Your task to perform on an android device: What's the news in Malaysia? Image 0: 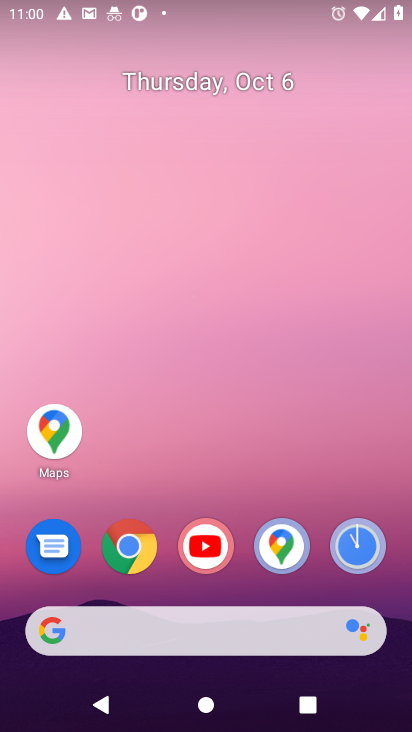
Step 0: click (124, 541)
Your task to perform on an android device: What's the news in Malaysia? Image 1: 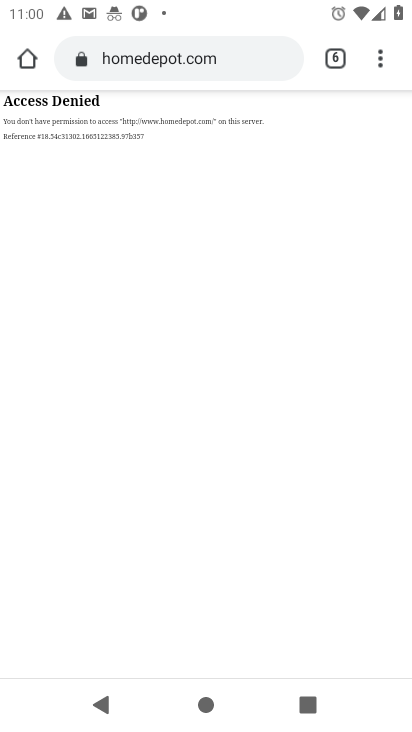
Step 1: click (217, 51)
Your task to perform on an android device: What's the news in Malaysia? Image 2: 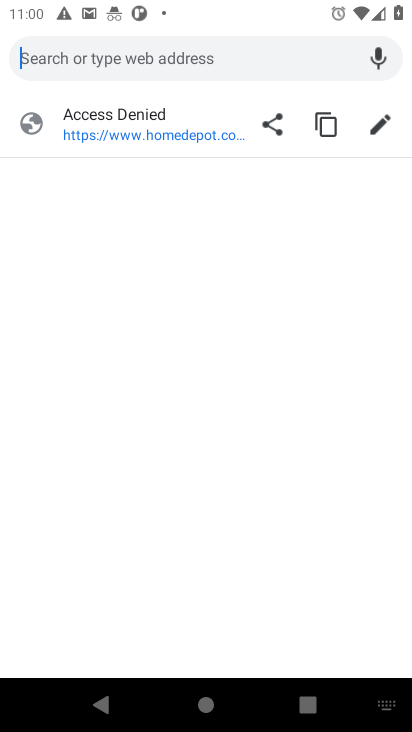
Step 2: type " news in Malaysia?"
Your task to perform on an android device: What's the news in Malaysia? Image 3: 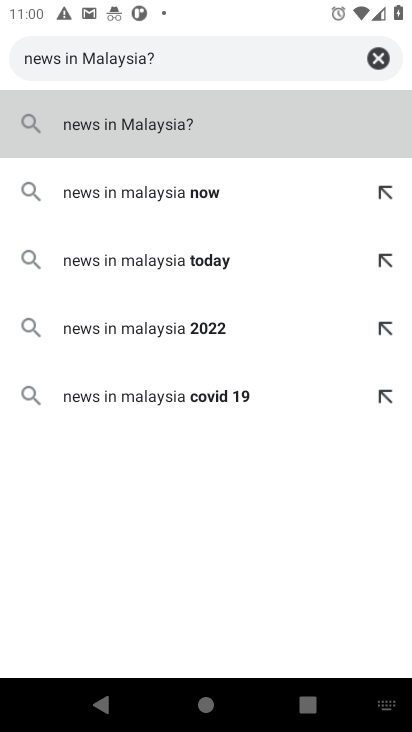
Step 3: click (101, 126)
Your task to perform on an android device: What's the news in Malaysia? Image 4: 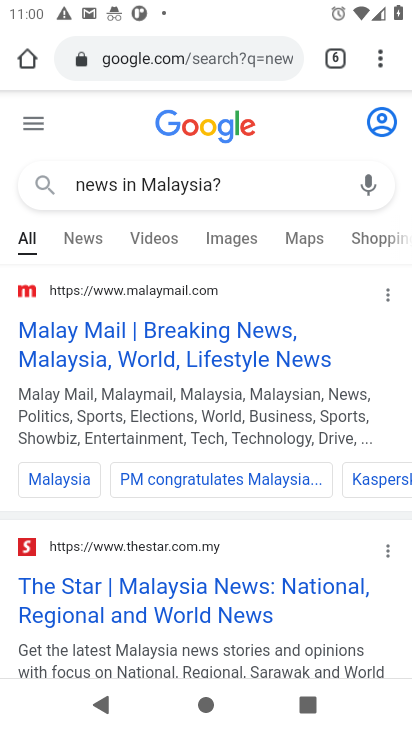
Step 4: click (75, 328)
Your task to perform on an android device: What's the news in Malaysia? Image 5: 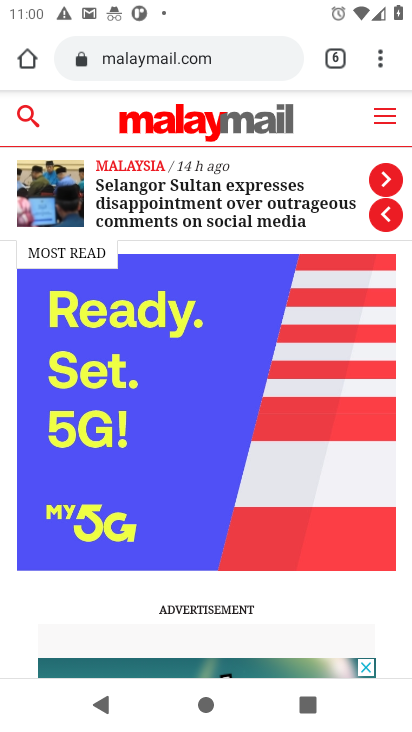
Step 5: drag from (218, 578) to (217, 109)
Your task to perform on an android device: What's the news in Malaysia? Image 6: 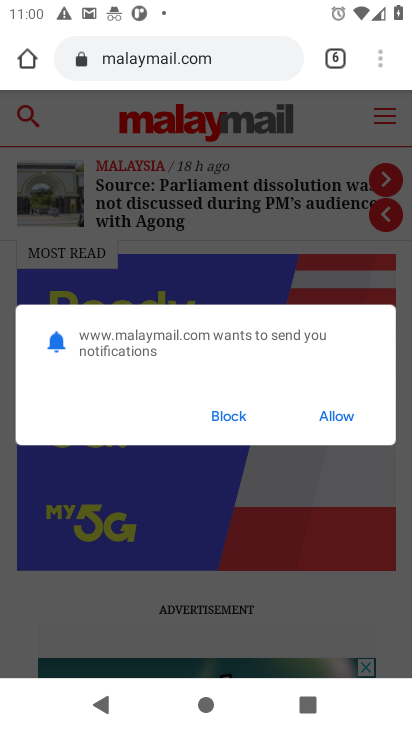
Step 6: click (221, 414)
Your task to perform on an android device: What's the news in Malaysia? Image 7: 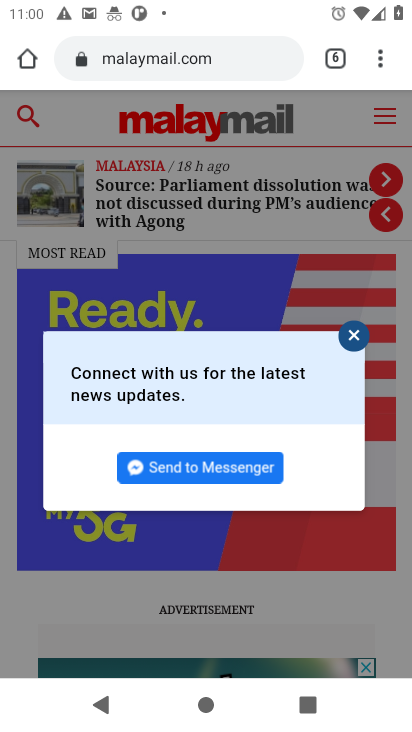
Step 7: click (352, 331)
Your task to perform on an android device: What's the news in Malaysia? Image 8: 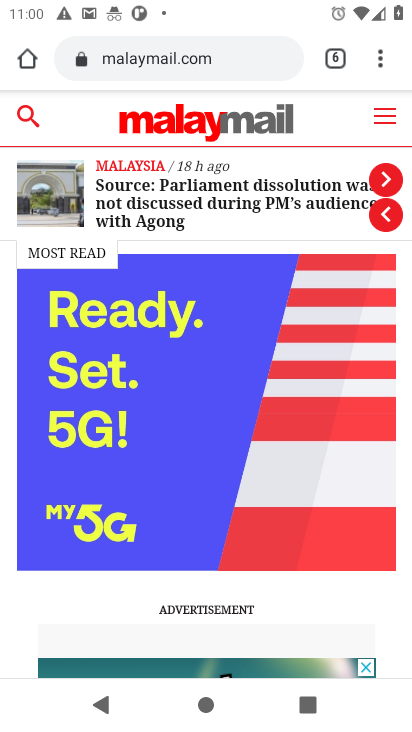
Step 8: drag from (305, 623) to (240, 55)
Your task to perform on an android device: What's the news in Malaysia? Image 9: 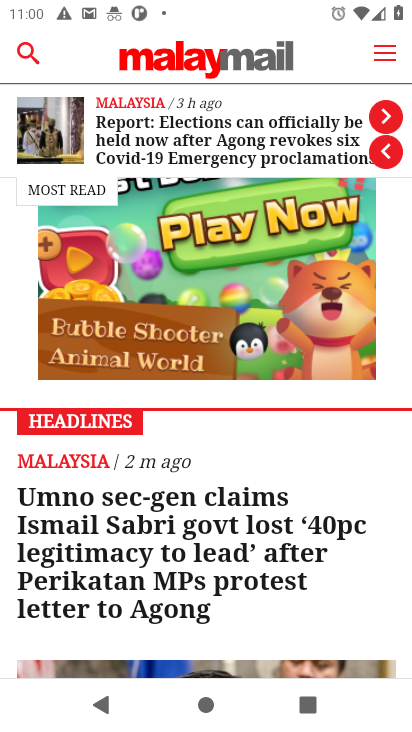
Step 9: drag from (254, 536) to (269, 89)
Your task to perform on an android device: What's the news in Malaysia? Image 10: 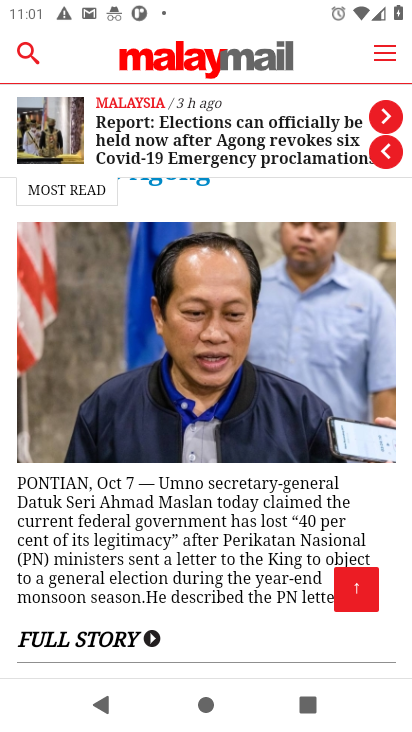
Step 10: drag from (231, 531) to (234, 204)
Your task to perform on an android device: What's the news in Malaysia? Image 11: 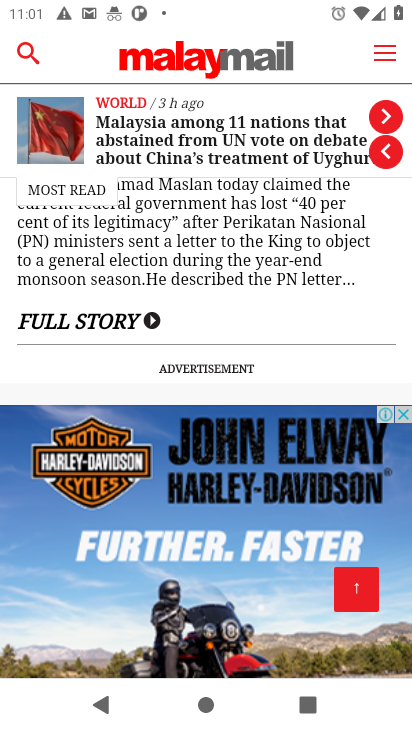
Step 11: drag from (262, 605) to (233, 189)
Your task to perform on an android device: What's the news in Malaysia? Image 12: 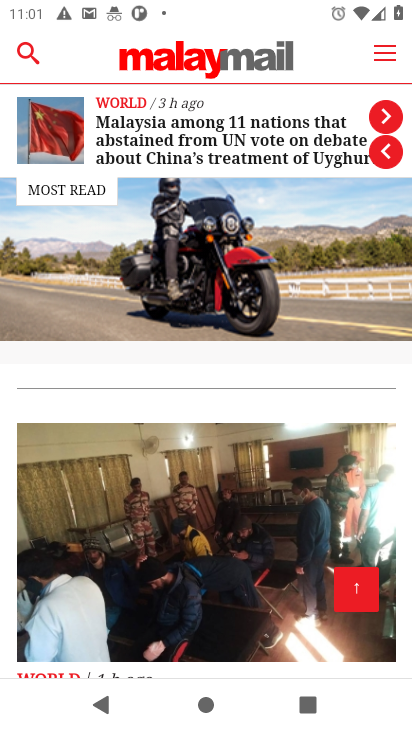
Step 12: drag from (248, 397) to (240, 203)
Your task to perform on an android device: What's the news in Malaysia? Image 13: 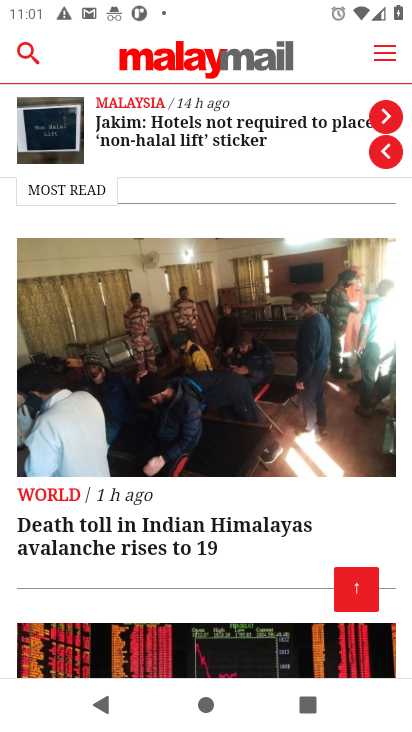
Step 13: drag from (255, 567) to (245, 240)
Your task to perform on an android device: What's the news in Malaysia? Image 14: 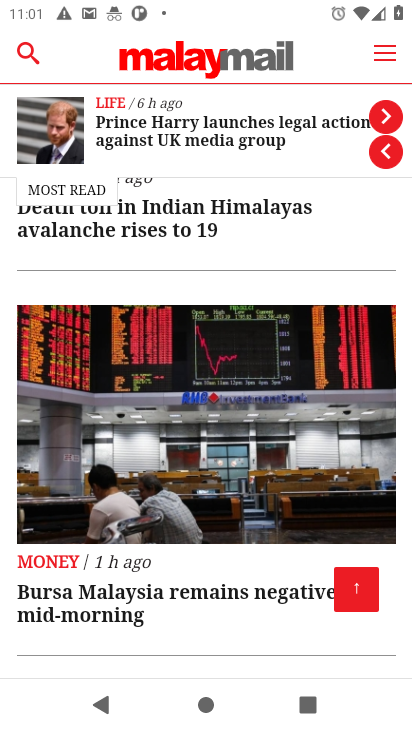
Step 14: drag from (252, 559) to (249, 162)
Your task to perform on an android device: What's the news in Malaysia? Image 15: 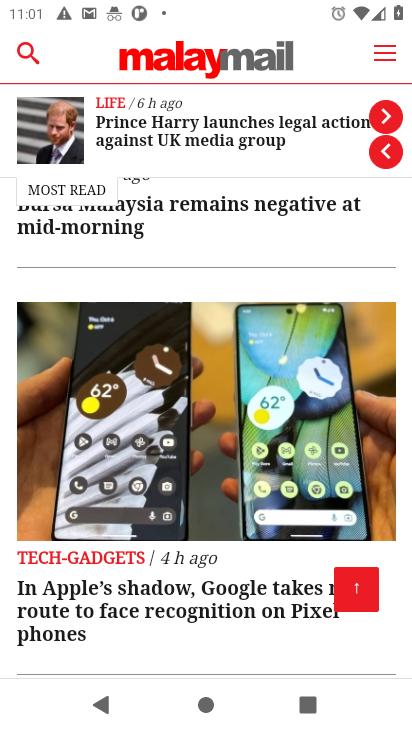
Step 15: drag from (249, 280) to (272, 404)
Your task to perform on an android device: What's the news in Malaysia? Image 16: 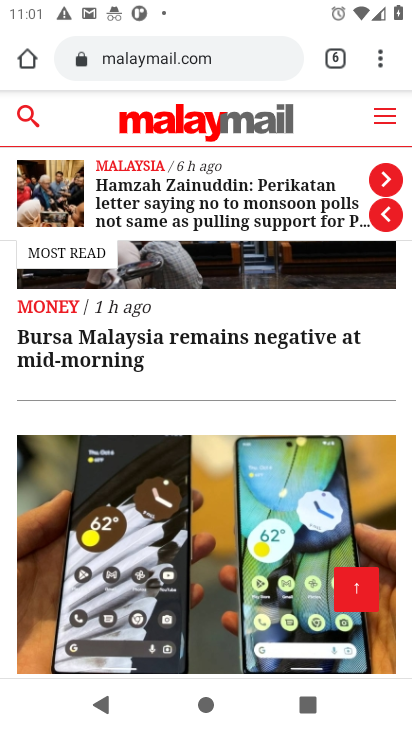
Step 16: drag from (248, 314) to (249, 540)
Your task to perform on an android device: What's the news in Malaysia? Image 17: 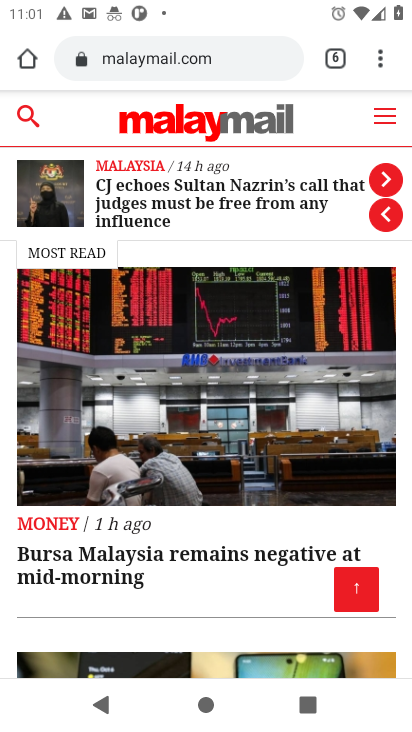
Step 17: drag from (244, 259) to (256, 526)
Your task to perform on an android device: What's the news in Malaysia? Image 18: 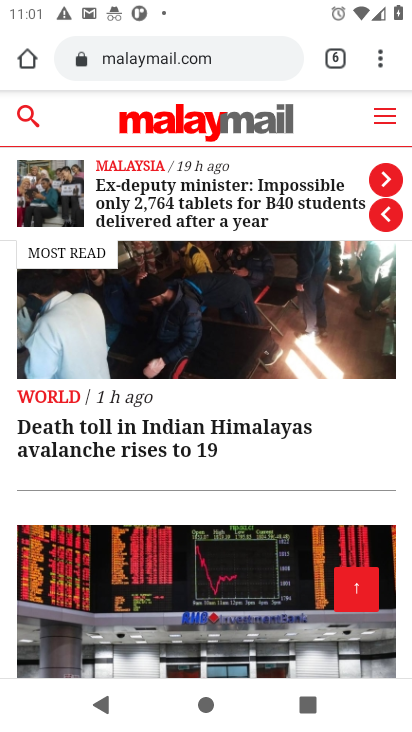
Step 18: drag from (244, 348) to (232, 527)
Your task to perform on an android device: What's the news in Malaysia? Image 19: 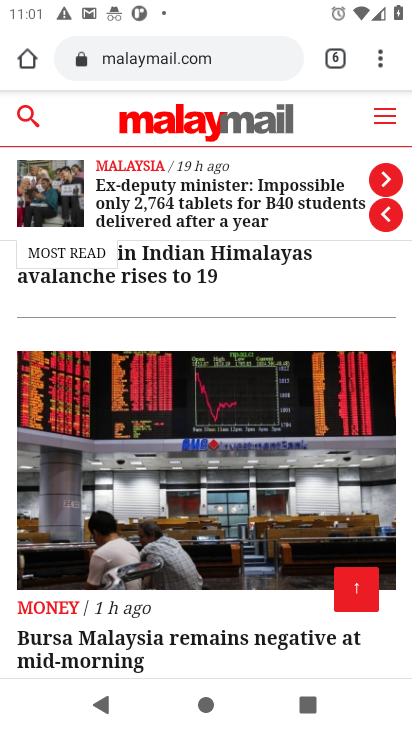
Step 19: drag from (236, 269) to (230, 566)
Your task to perform on an android device: What's the news in Malaysia? Image 20: 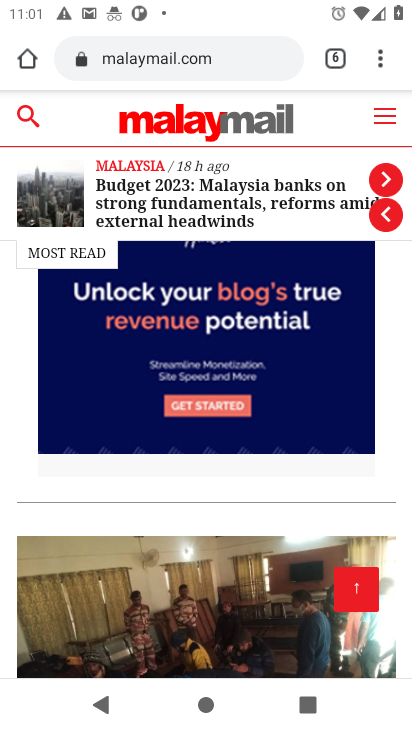
Step 20: drag from (234, 293) to (219, 677)
Your task to perform on an android device: What's the news in Malaysia? Image 21: 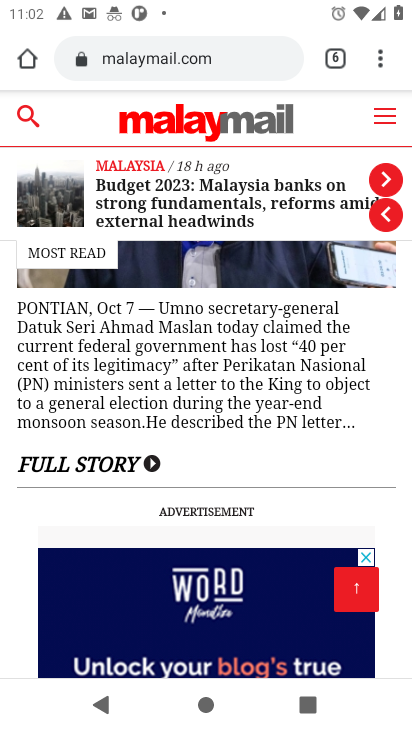
Step 21: drag from (271, 366) to (229, 588)
Your task to perform on an android device: What's the news in Malaysia? Image 22: 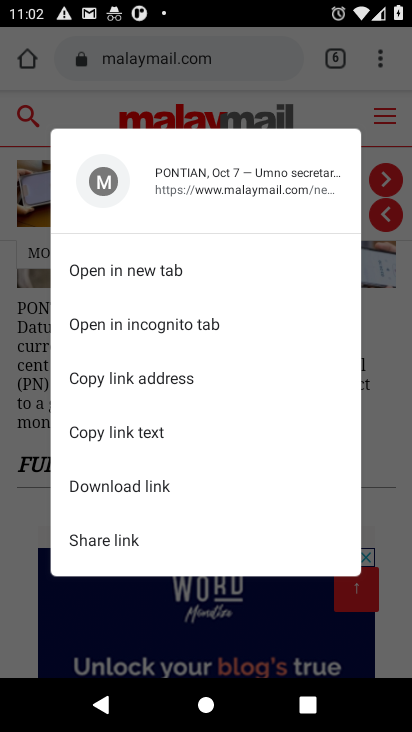
Step 22: click (21, 380)
Your task to perform on an android device: What's the news in Malaysia? Image 23: 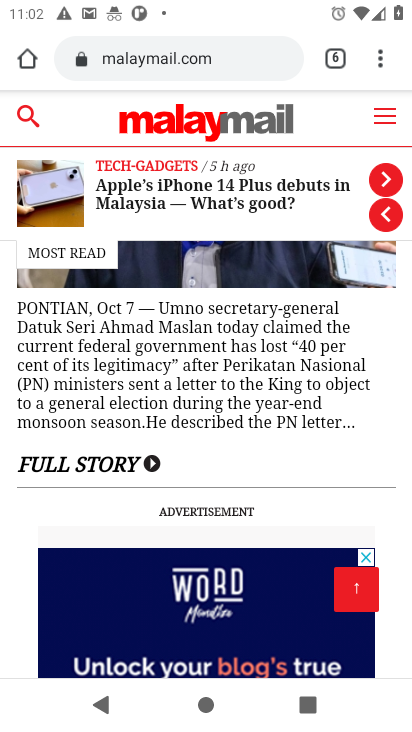
Step 23: task complete